Your task to perform on an android device: toggle notifications settings in the gmail app Image 0: 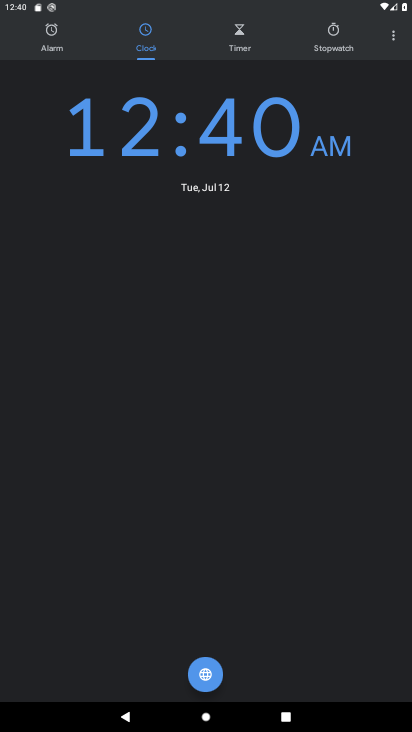
Step 0: press home button
Your task to perform on an android device: toggle notifications settings in the gmail app Image 1: 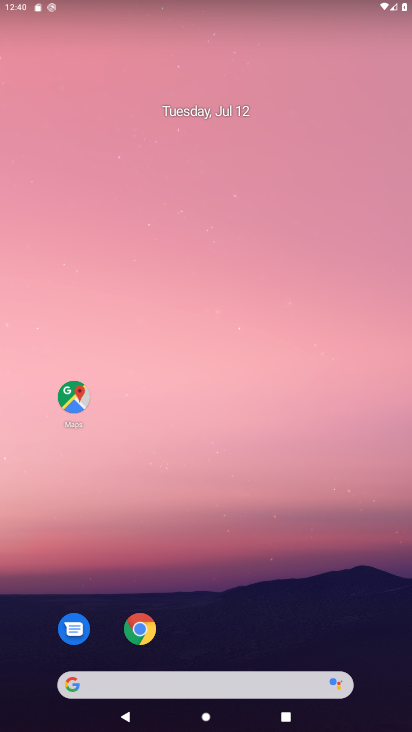
Step 1: drag from (182, 633) to (291, 142)
Your task to perform on an android device: toggle notifications settings in the gmail app Image 2: 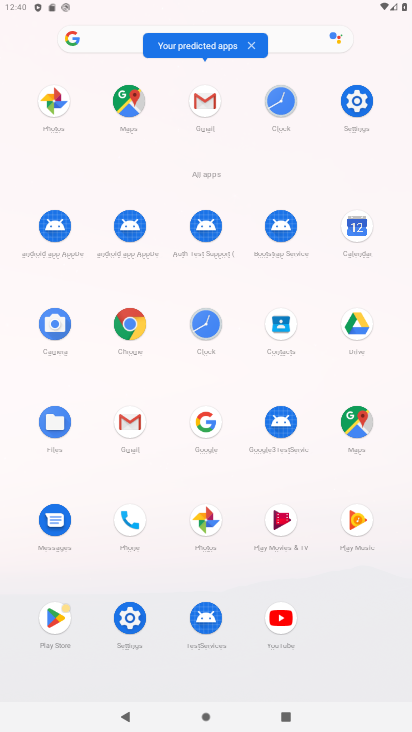
Step 2: click (129, 416)
Your task to perform on an android device: toggle notifications settings in the gmail app Image 3: 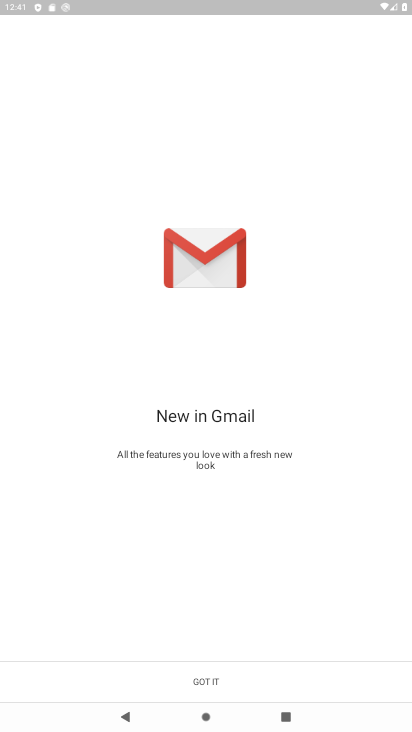
Step 3: click (205, 682)
Your task to perform on an android device: toggle notifications settings in the gmail app Image 4: 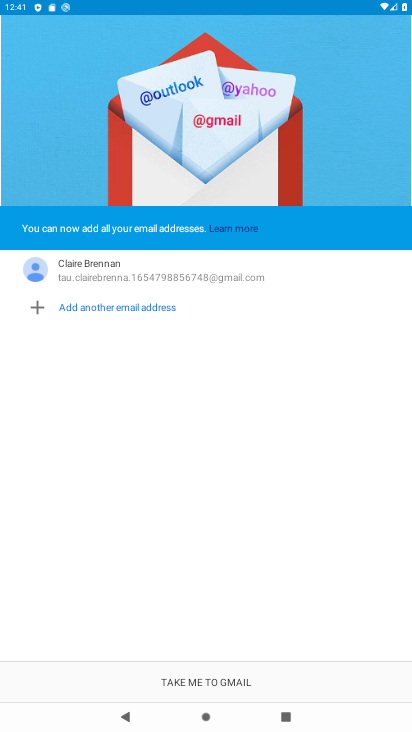
Step 4: click (205, 682)
Your task to perform on an android device: toggle notifications settings in the gmail app Image 5: 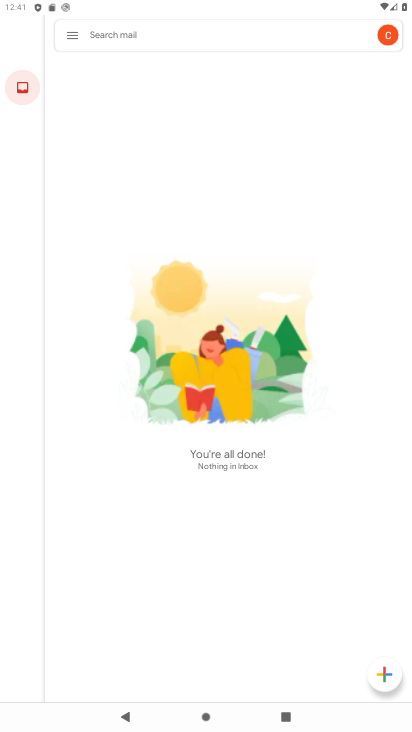
Step 5: click (83, 46)
Your task to perform on an android device: toggle notifications settings in the gmail app Image 6: 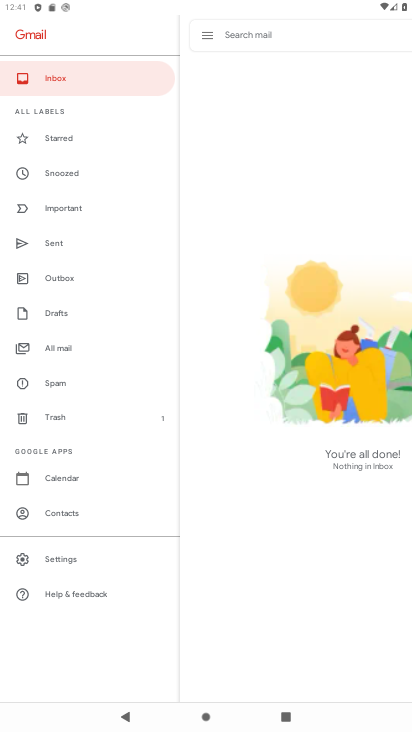
Step 6: click (74, 567)
Your task to perform on an android device: toggle notifications settings in the gmail app Image 7: 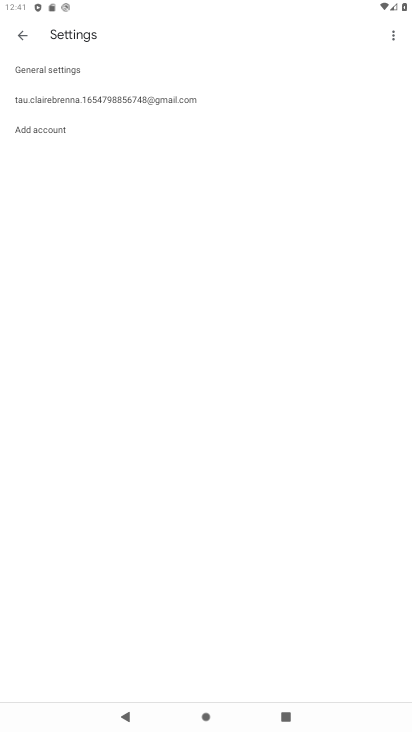
Step 7: click (199, 109)
Your task to perform on an android device: toggle notifications settings in the gmail app Image 8: 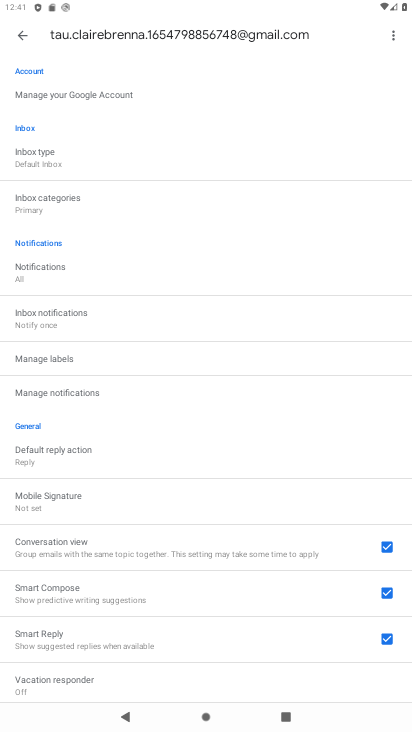
Step 8: click (103, 391)
Your task to perform on an android device: toggle notifications settings in the gmail app Image 9: 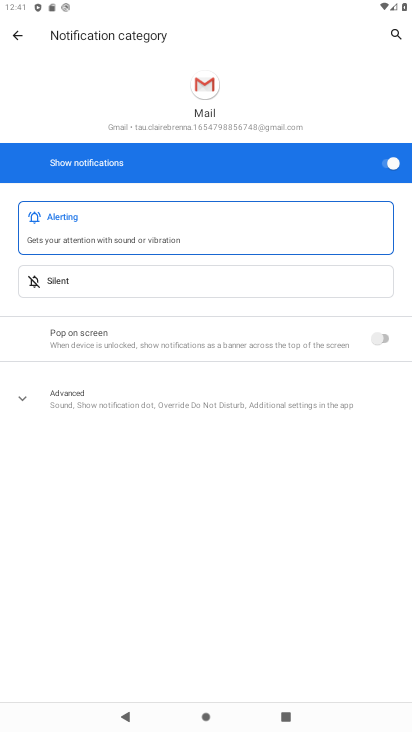
Step 9: click (377, 167)
Your task to perform on an android device: toggle notifications settings in the gmail app Image 10: 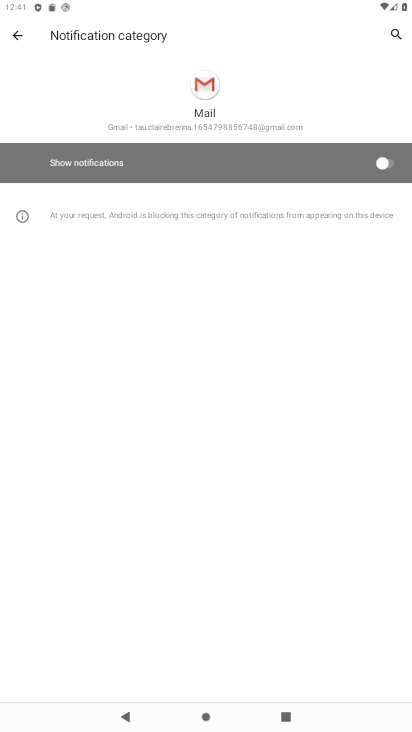
Step 10: task complete